Your task to perform on an android device: Open CNN.com Image 0: 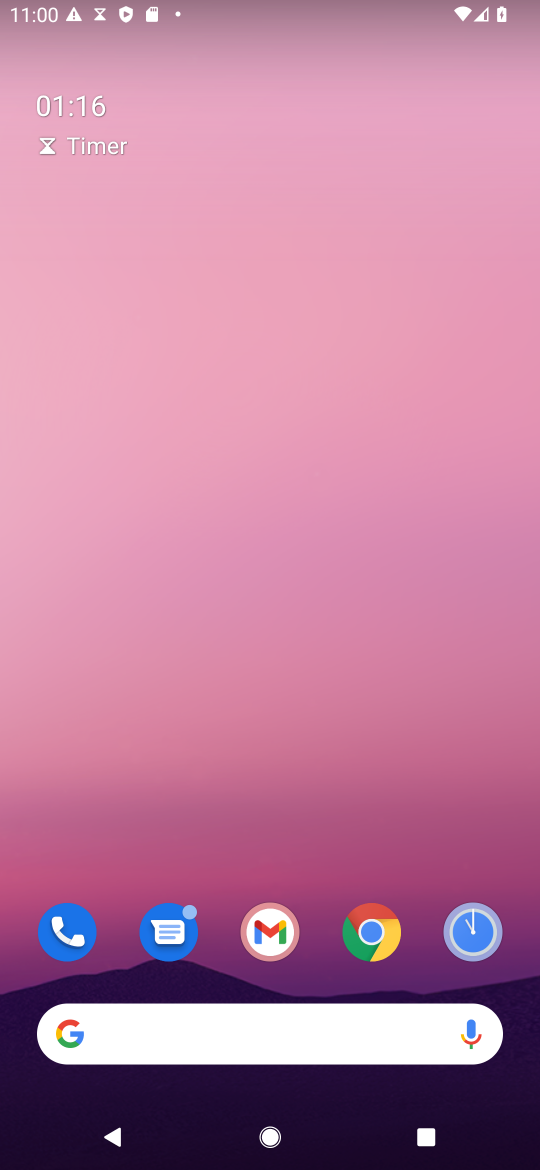
Step 0: click (371, 933)
Your task to perform on an android device: Open CNN.com Image 1: 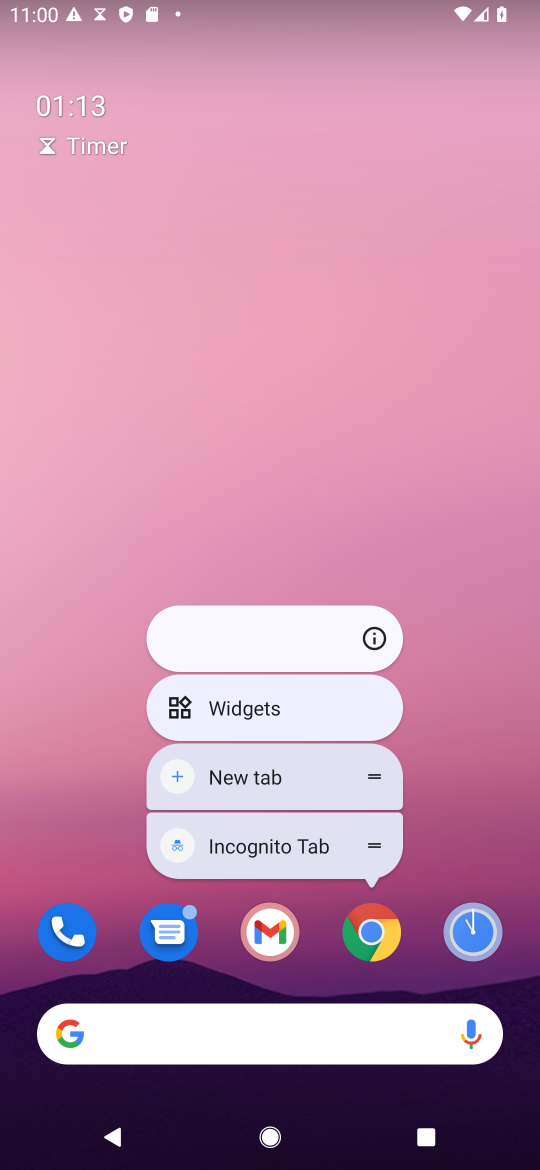
Step 1: click (384, 923)
Your task to perform on an android device: Open CNN.com Image 2: 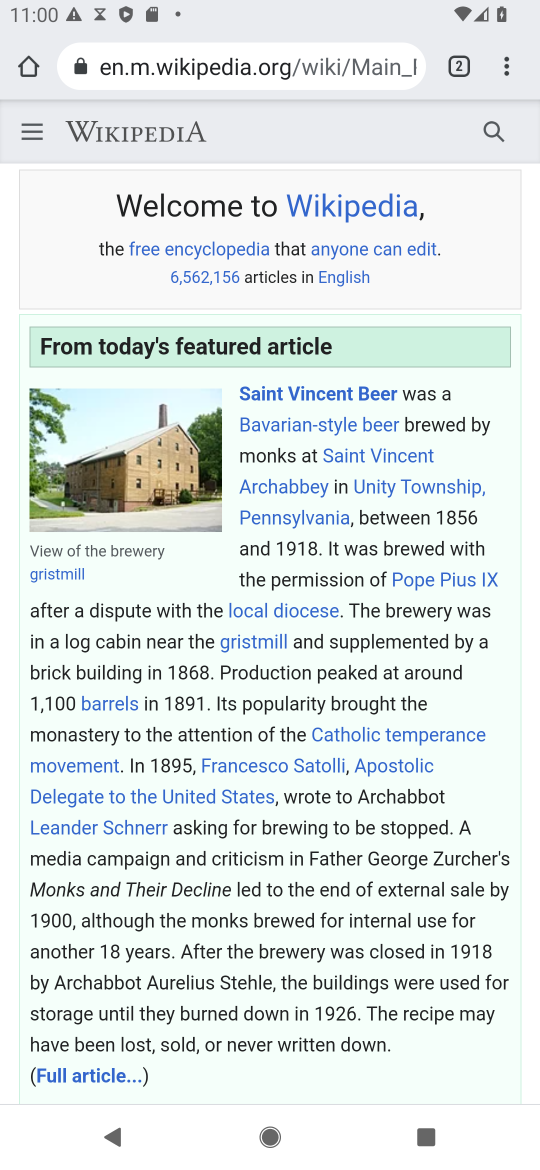
Step 2: click (249, 53)
Your task to perform on an android device: Open CNN.com Image 3: 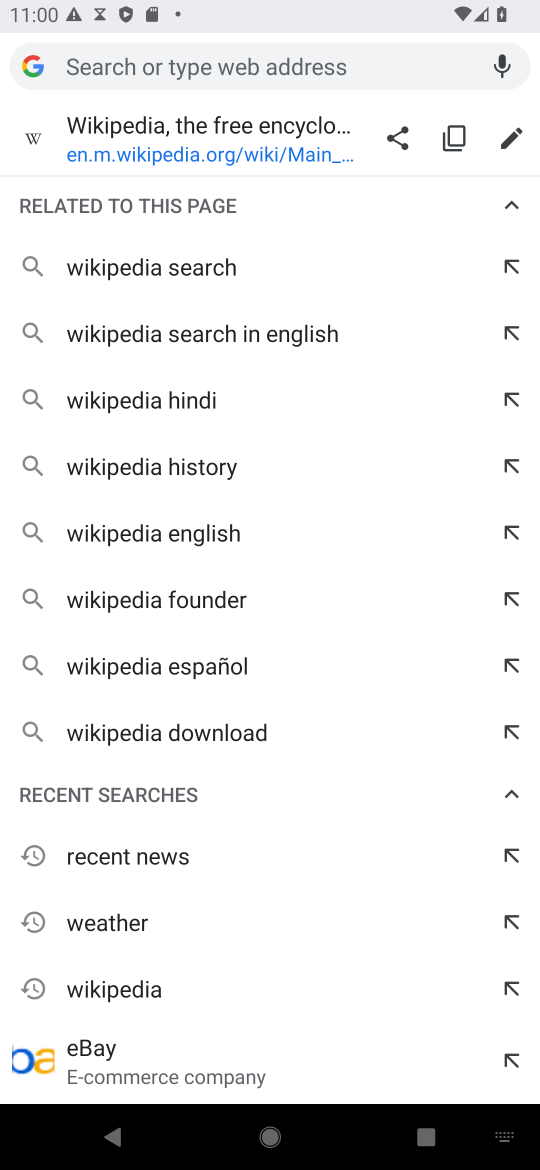
Step 3: type "CNN.com"
Your task to perform on an android device: Open CNN.com Image 4: 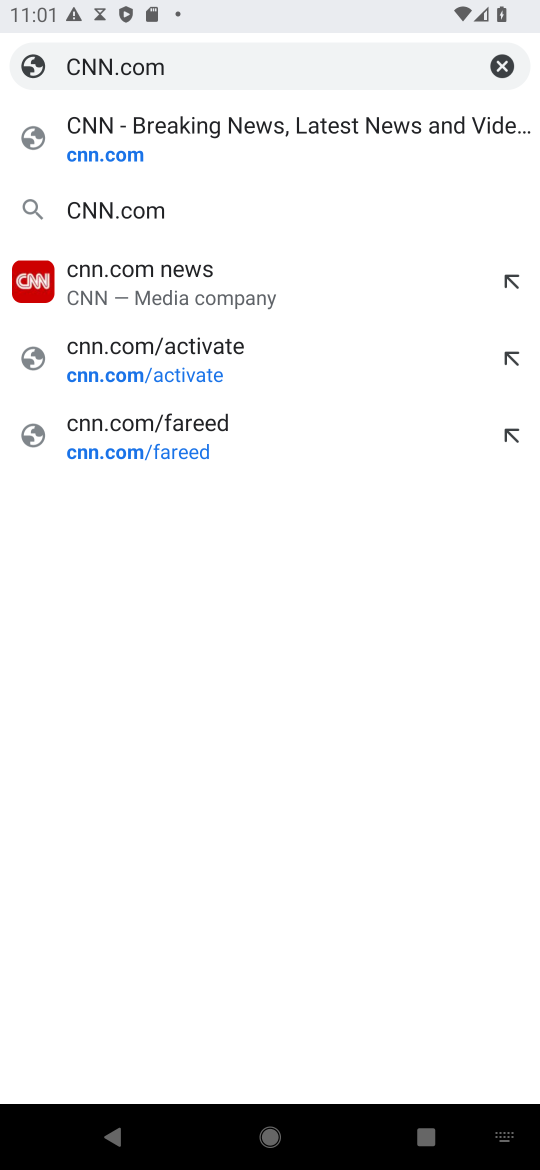
Step 4: click (239, 137)
Your task to perform on an android device: Open CNN.com Image 5: 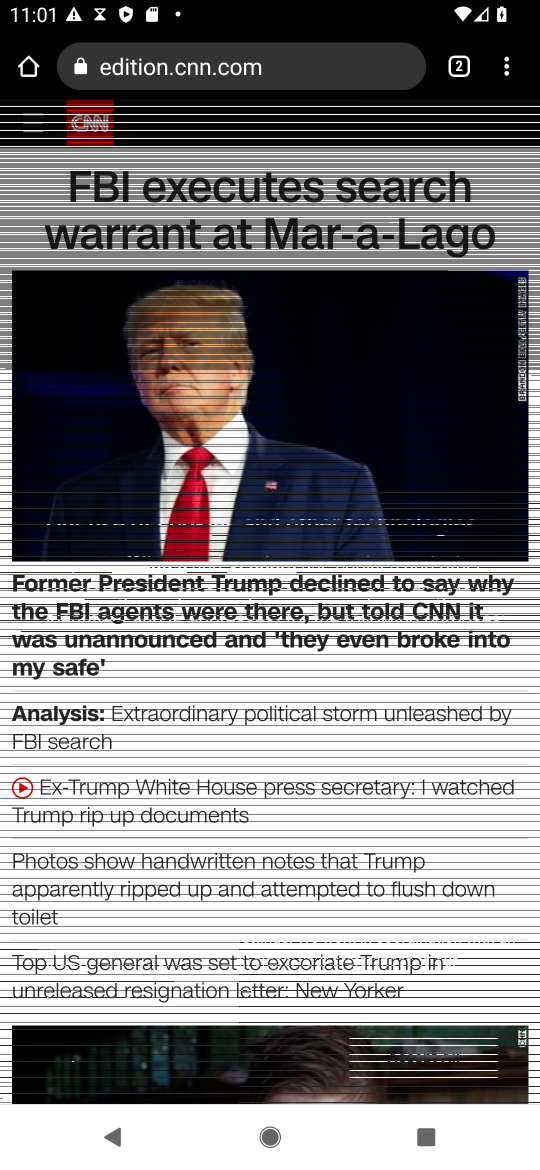
Step 5: task complete